Your task to perform on an android device: Open eBay Image 0: 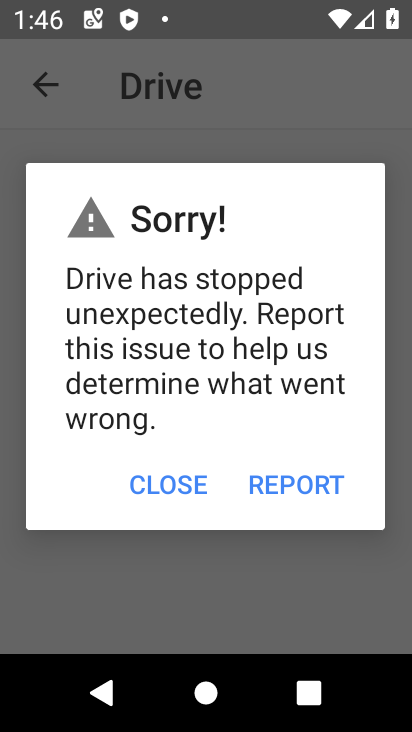
Step 0: press home button
Your task to perform on an android device: Open eBay Image 1: 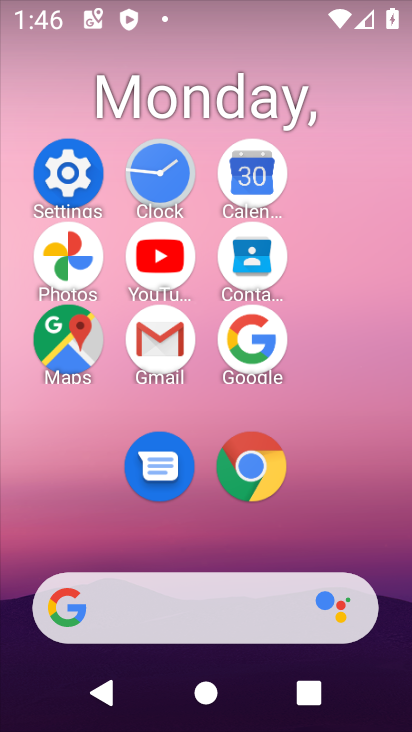
Step 1: click (282, 498)
Your task to perform on an android device: Open eBay Image 2: 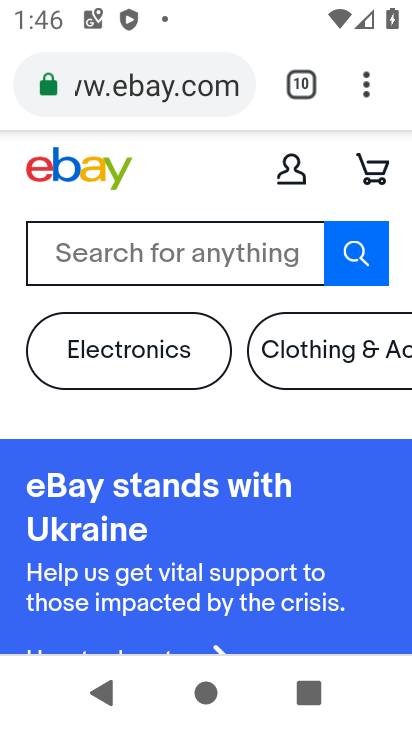
Step 2: task complete